Your task to perform on an android device: Search for sushi restaurants on Maps Image 0: 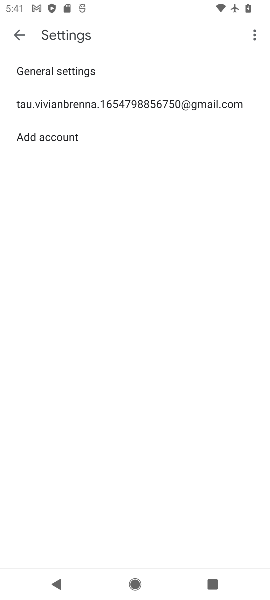
Step 0: press home button
Your task to perform on an android device: Search for sushi restaurants on Maps Image 1: 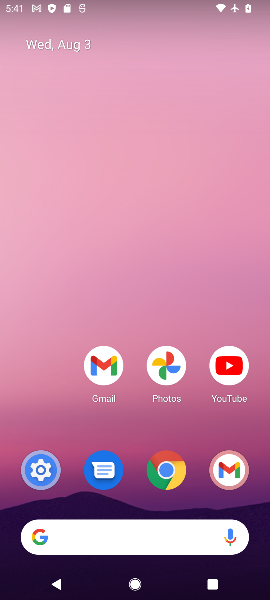
Step 1: drag from (143, 432) to (145, 88)
Your task to perform on an android device: Search for sushi restaurants on Maps Image 2: 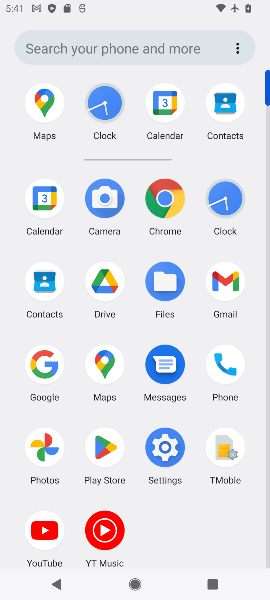
Step 2: click (105, 355)
Your task to perform on an android device: Search for sushi restaurants on Maps Image 3: 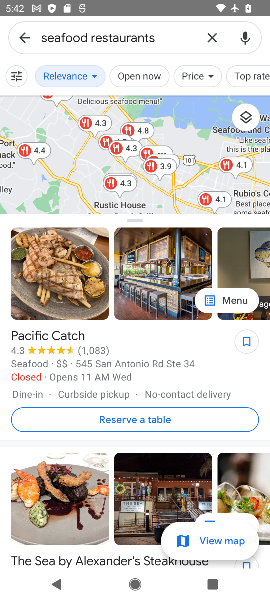
Step 3: click (211, 37)
Your task to perform on an android device: Search for sushi restaurants on Maps Image 4: 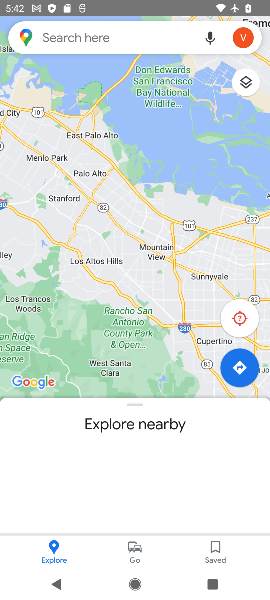
Step 4: click (158, 32)
Your task to perform on an android device: Search for sushi restaurants on Maps Image 5: 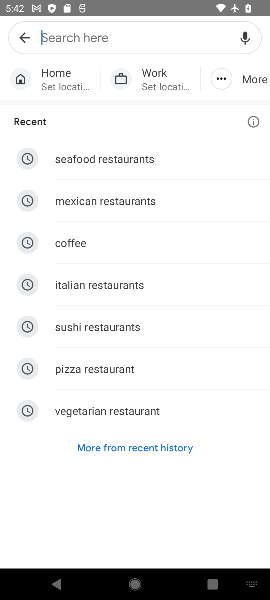
Step 5: click (107, 325)
Your task to perform on an android device: Search for sushi restaurants on Maps Image 6: 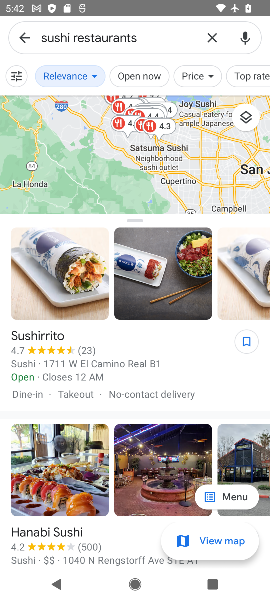
Step 6: task complete